Your task to perform on an android device: check the backup settings in the google photos Image 0: 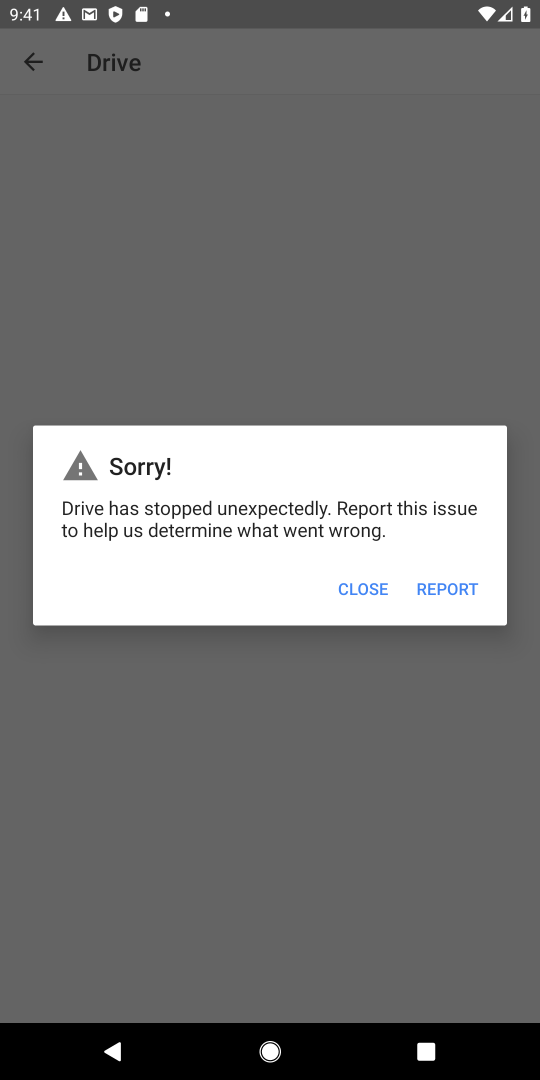
Step 0: press home button
Your task to perform on an android device: check the backup settings in the google photos Image 1: 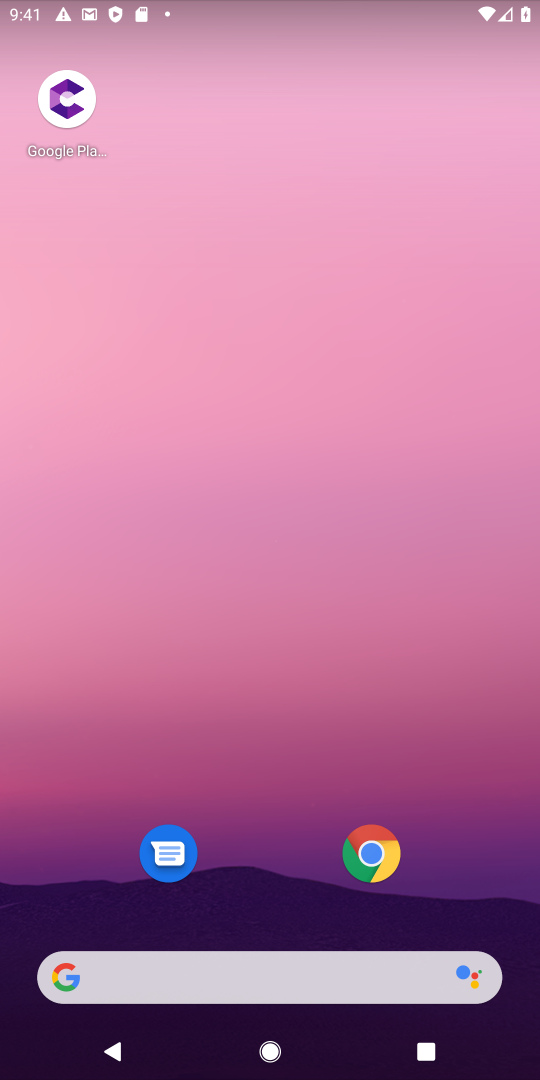
Step 1: drag from (296, 875) to (323, 106)
Your task to perform on an android device: check the backup settings in the google photos Image 2: 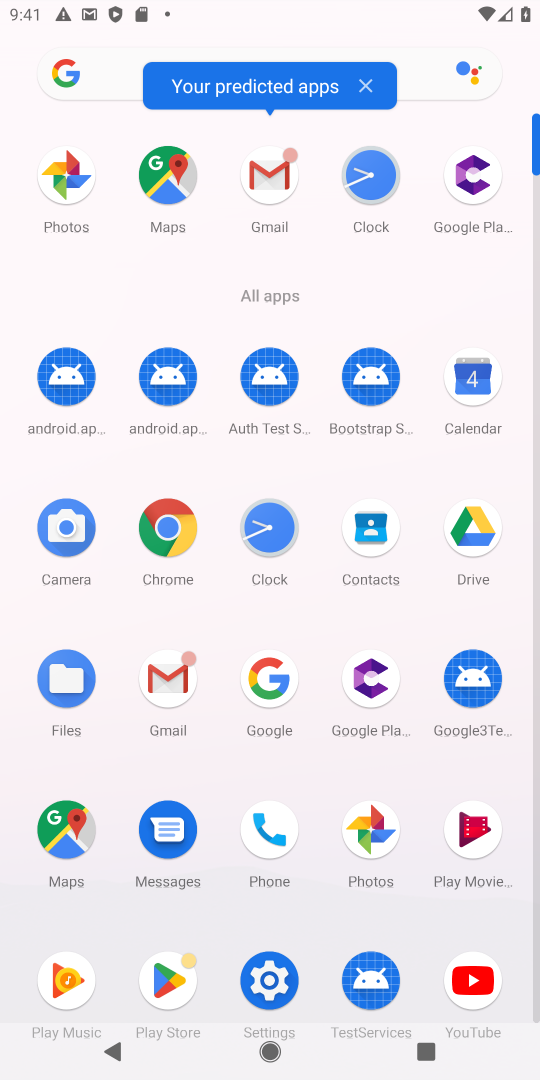
Step 2: click (368, 872)
Your task to perform on an android device: check the backup settings in the google photos Image 3: 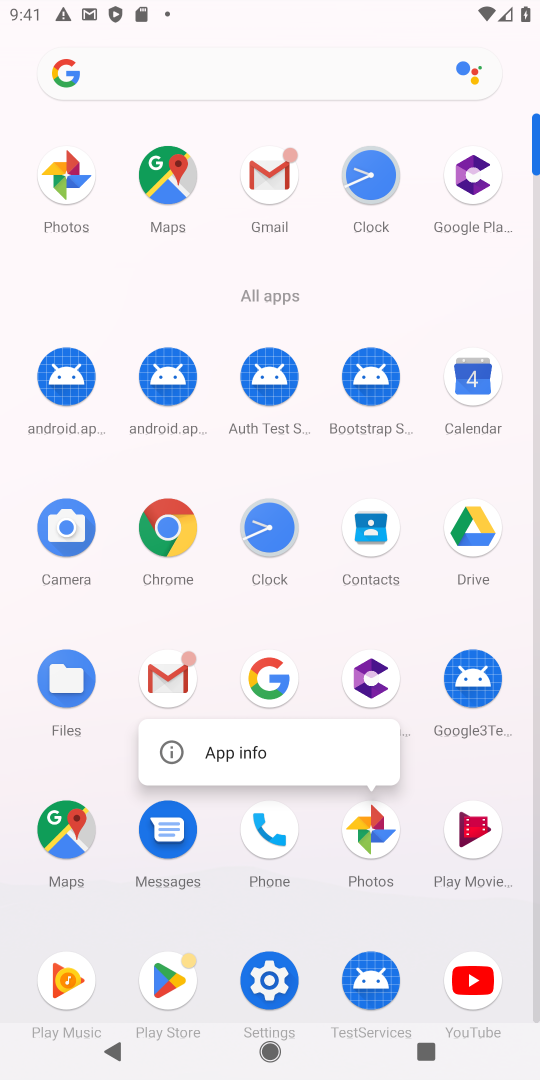
Step 3: click (371, 844)
Your task to perform on an android device: check the backup settings in the google photos Image 4: 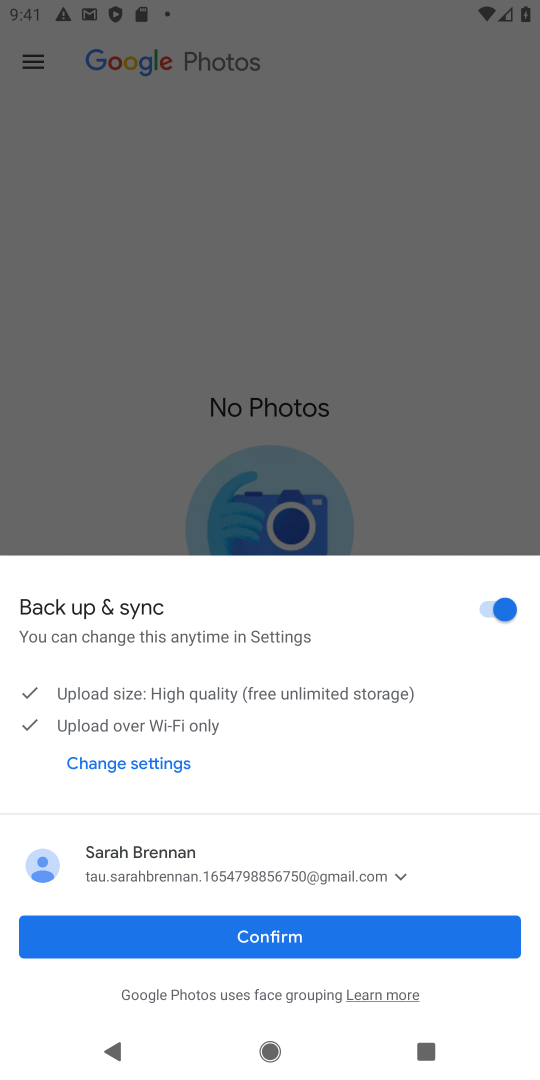
Step 4: click (231, 937)
Your task to perform on an android device: check the backup settings in the google photos Image 5: 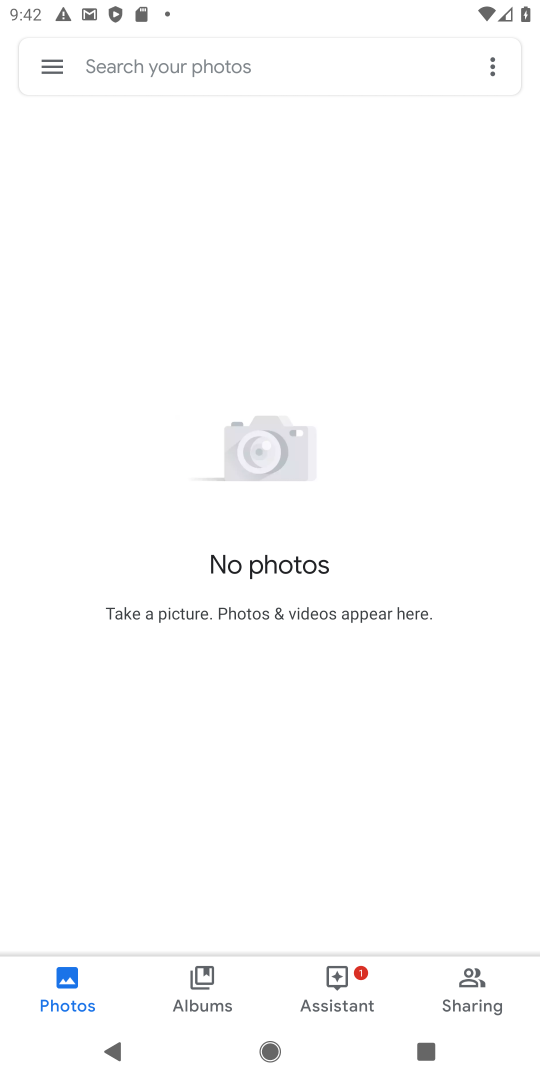
Step 5: click (49, 66)
Your task to perform on an android device: check the backup settings in the google photos Image 6: 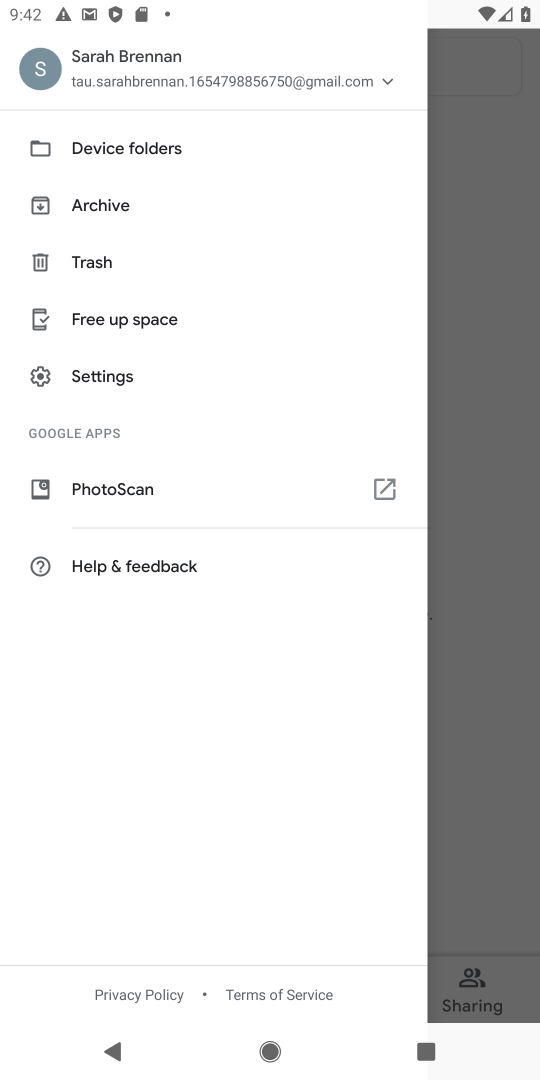
Step 6: click (109, 378)
Your task to perform on an android device: check the backup settings in the google photos Image 7: 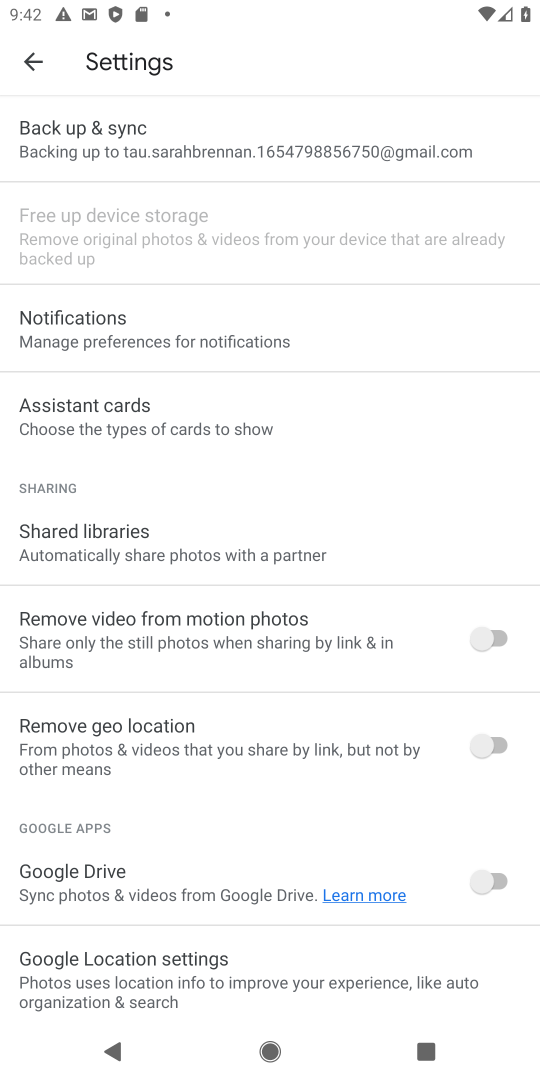
Step 7: click (179, 143)
Your task to perform on an android device: check the backup settings in the google photos Image 8: 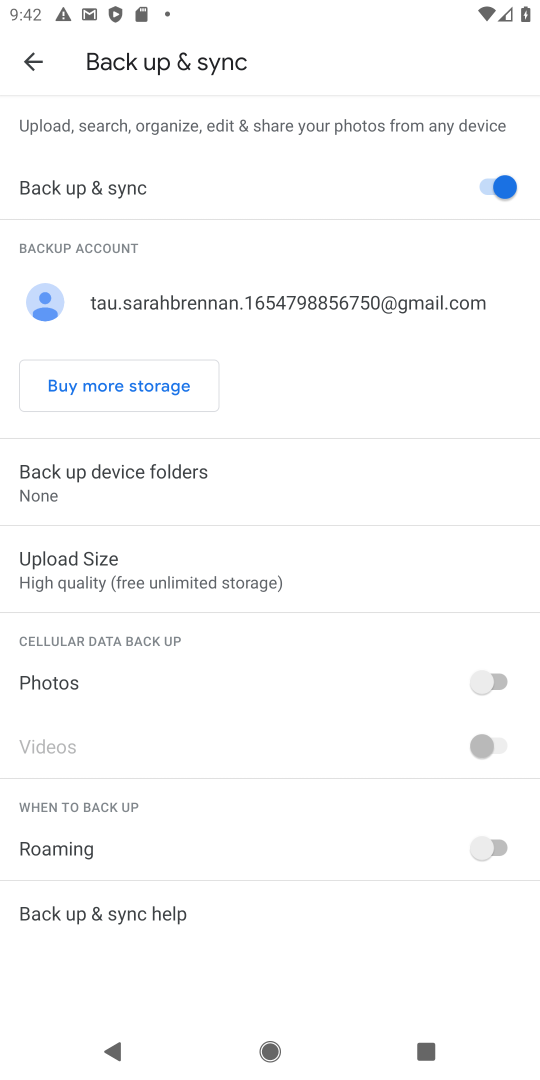
Step 8: task complete